Your task to perform on an android device: Show me productivity apps on the Play Store Image 0: 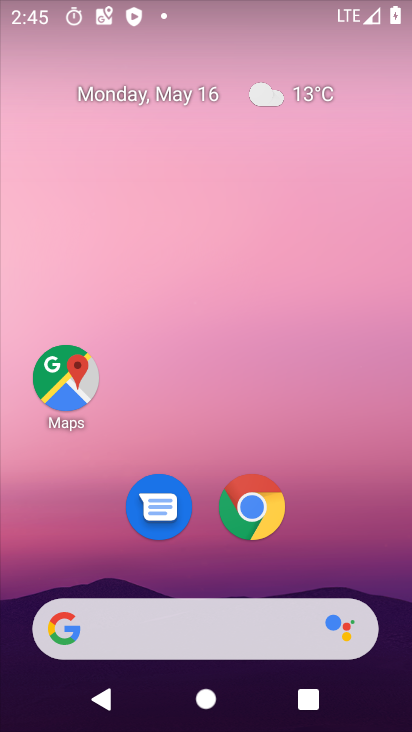
Step 0: drag from (362, 466) to (369, 86)
Your task to perform on an android device: Show me productivity apps on the Play Store Image 1: 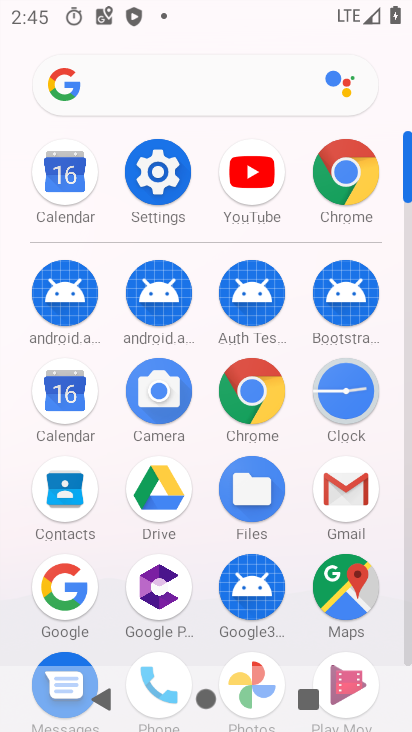
Step 1: drag from (194, 635) to (204, 348)
Your task to perform on an android device: Show me productivity apps on the Play Store Image 2: 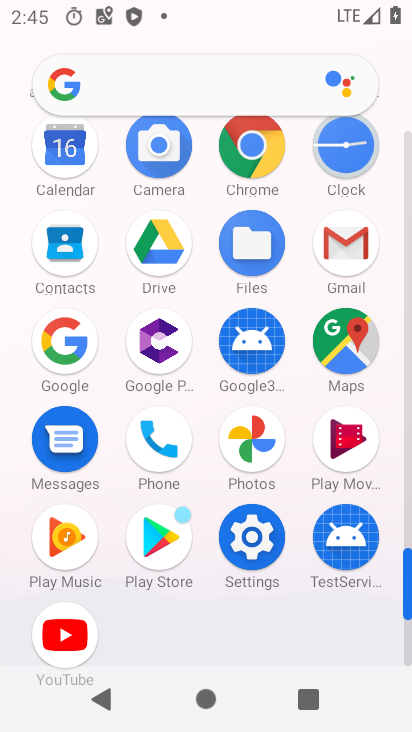
Step 2: click (167, 546)
Your task to perform on an android device: Show me productivity apps on the Play Store Image 3: 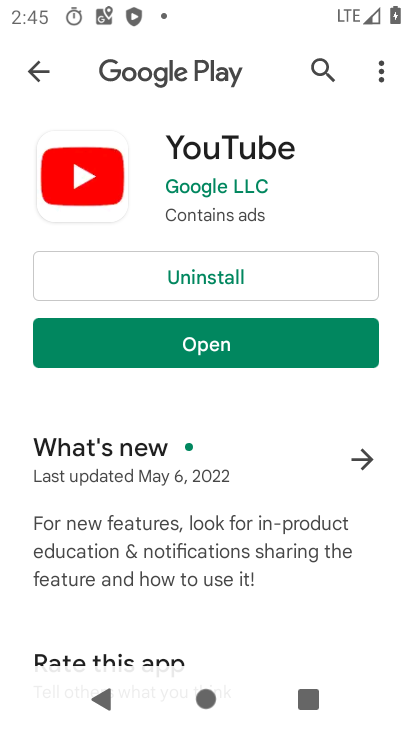
Step 3: click (28, 78)
Your task to perform on an android device: Show me productivity apps on the Play Store Image 4: 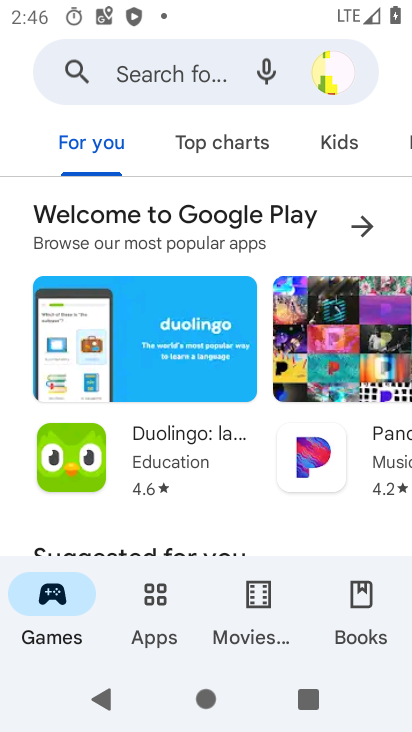
Step 4: click (160, 617)
Your task to perform on an android device: Show me productivity apps on the Play Store Image 5: 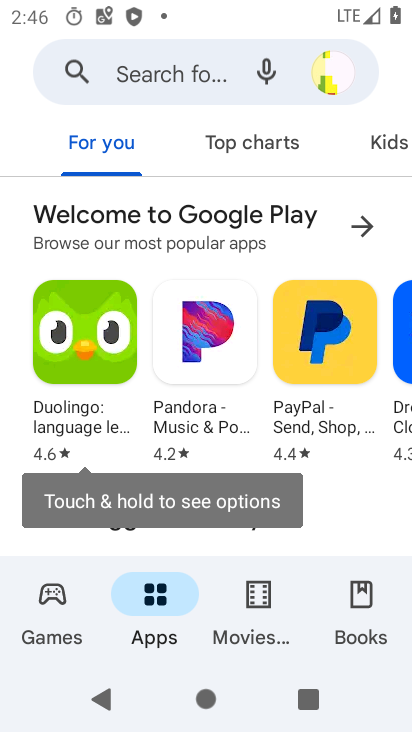
Step 5: click (193, 73)
Your task to perform on an android device: Show me productivity apps on the Play Store Image 6: 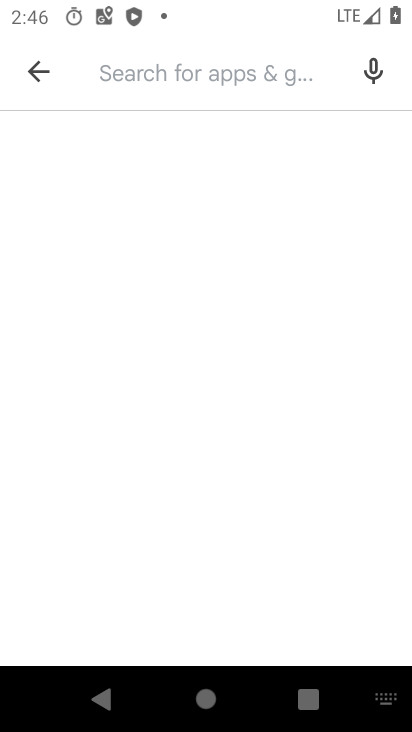
Step 6: type "productivity"
Your task to perform on an android device: Show me productivity apps on the Play Store Image 7: 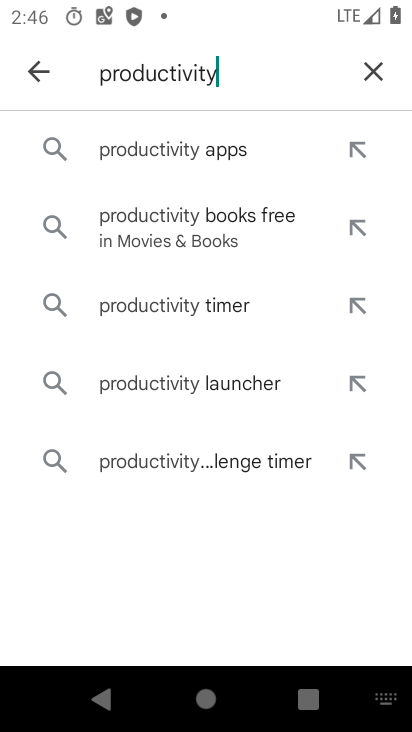
Step 7: click (231, 157)
Your task to perform on an android device: Show me productivity apps on the Play Store Image 8: 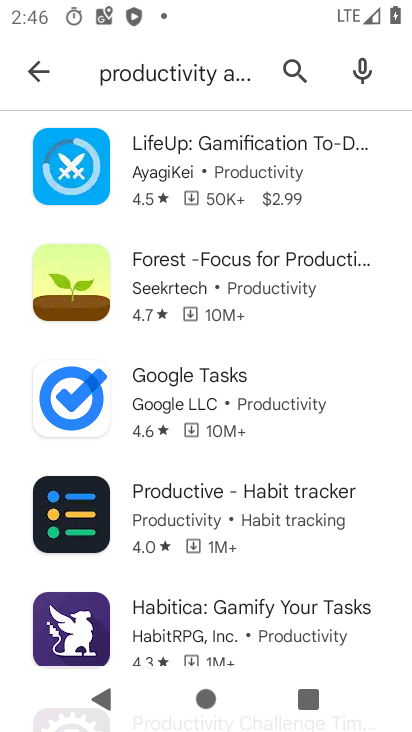
Step 8: task complete